Your task to perform on an android device: Open CNN.com Image 0: 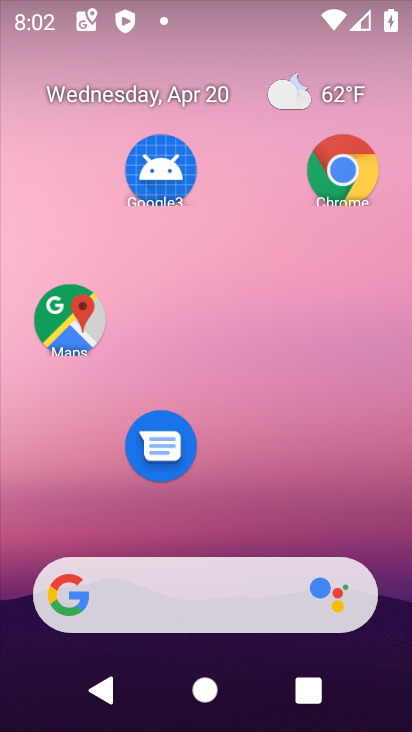
Step 0: click (332, 173)
Your task to perform on an android device: Open CNN.com Image 1: 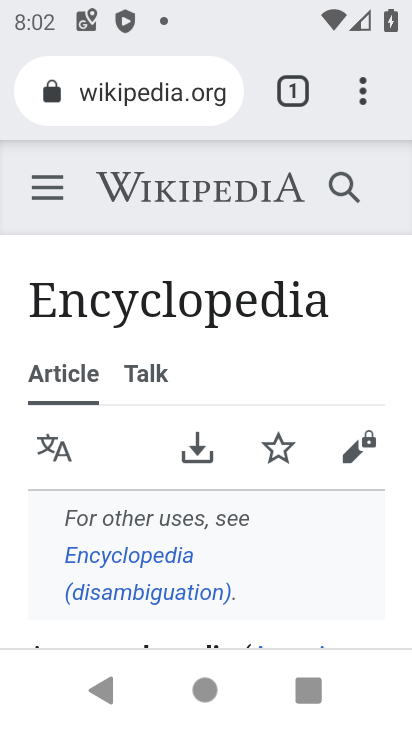
Step 1: click (345, 170)
Your task to perform on an android device: Open CNN.com Image 2: 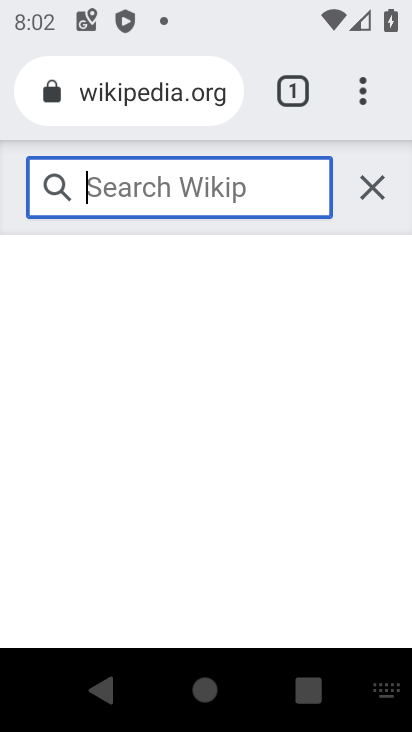
Step 2: click (360, 93)
Your task to perform on an android device: Open CNN.com Image 3: 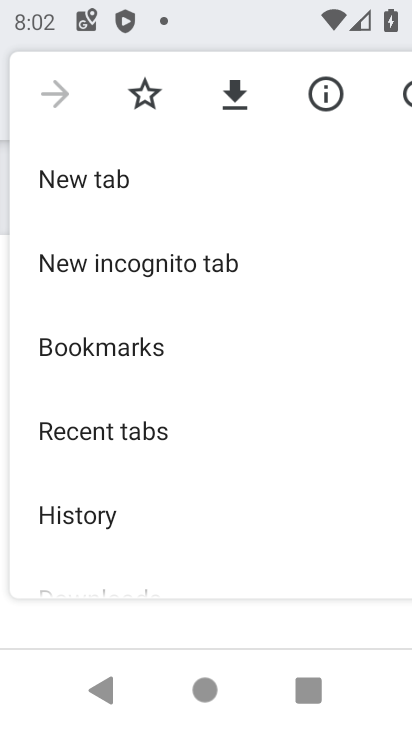
Step 3: click (101, 174)
Your task to perform on an android device: Open CNN.com Image 4: 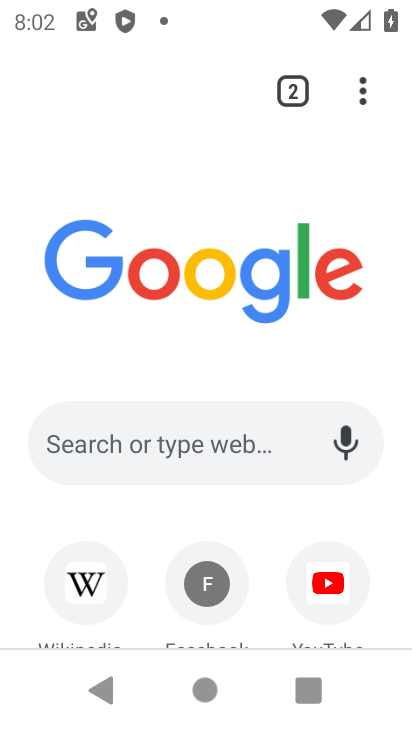
Step 4: click (146, 431)
Your task to perform on an android device: Open CNN.com Image 5: 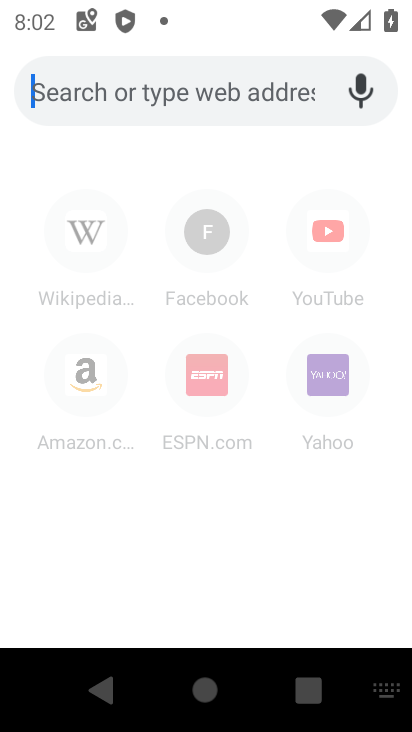
Step 5: type "CNN.com"
Your task to perform on an android device: Open CNN.com Image 6: 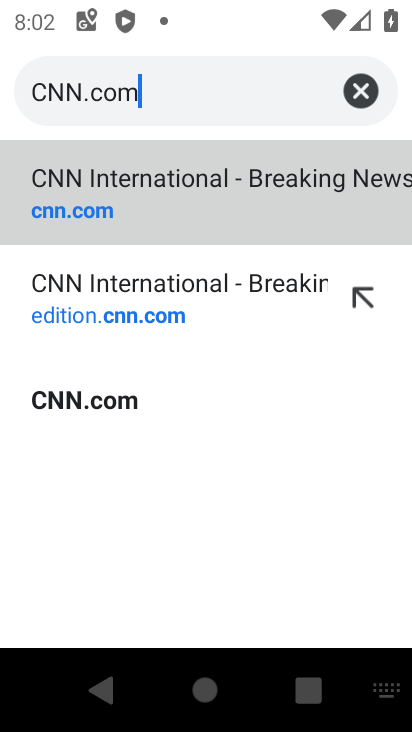
Step 6: click (94, 207)
Your task to perform on an android device: Open CNN.com Image 7: 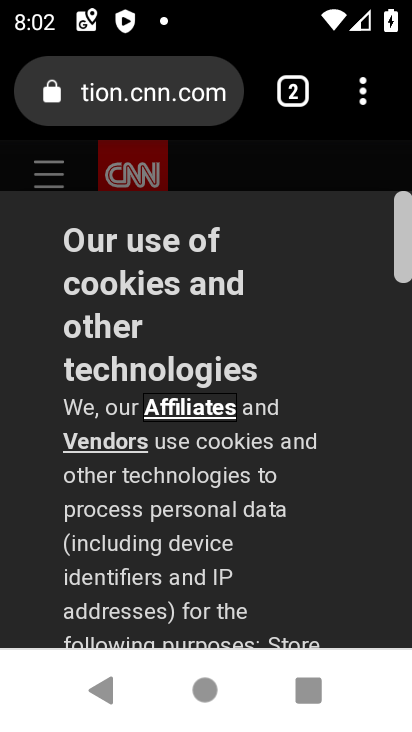
Step 7: task complete